Your task to perform on an android device: turn on improve location accuracy Image 0: 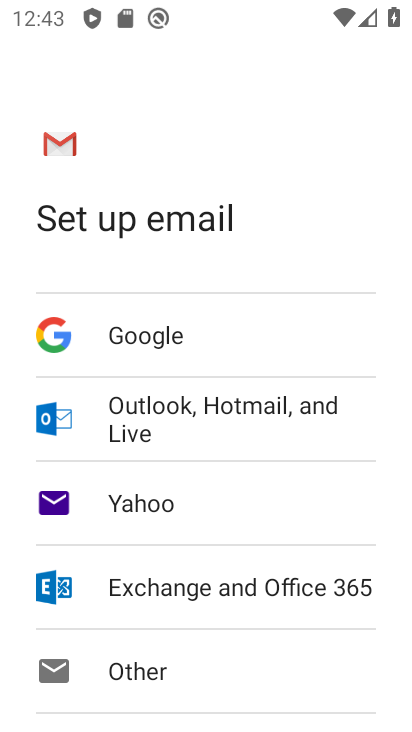
Step 0: press home button
Your task to perform on an android device: turn on improve location accuracy Image 1: 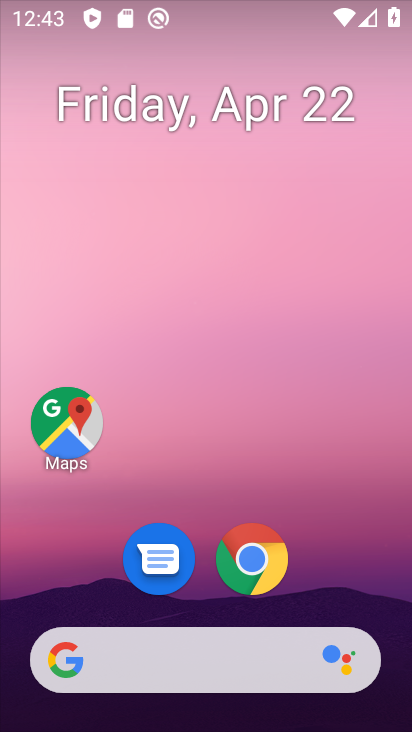
Step 1: drag from (370, 582) to (337, 83)
Your task to perform on an android device: turn on improve location accuracy Image 2: 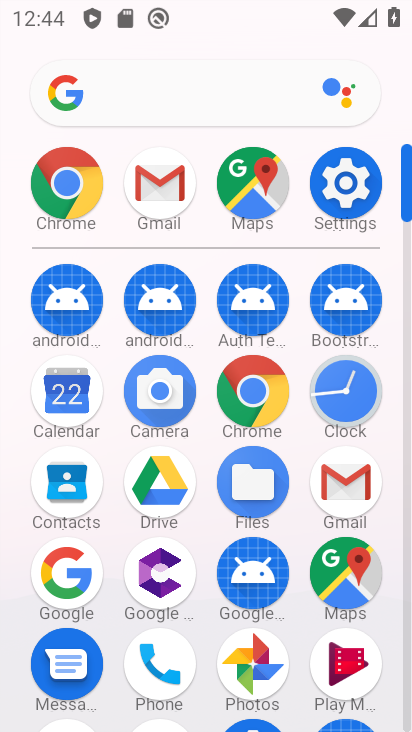
Step 2: click (357, 196)
Your task to perform on an android device: turn on improve location accuracy Image 3: 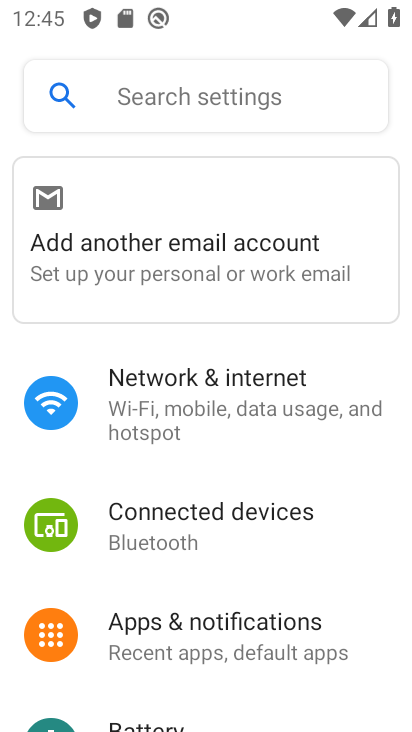
Step 3: drag from (128, 626) to (241, 313)
Your task to perform on an android device: turn on improve location accuracy Image 4: 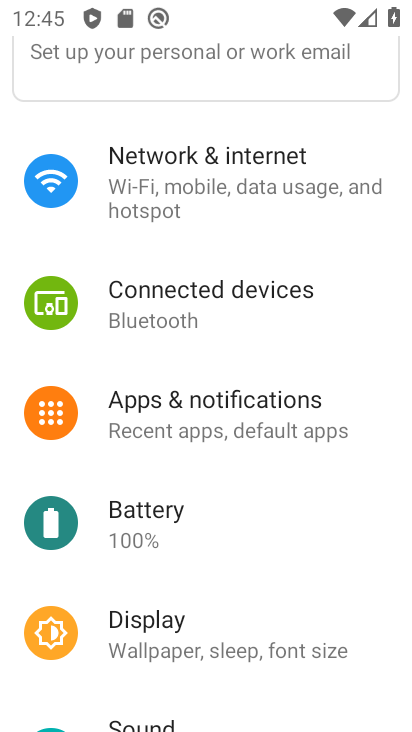
Step 4: drag from (161, 627) to (233, 328)
Your task to perform on an android device: turn on improve location accuracy Image 5: 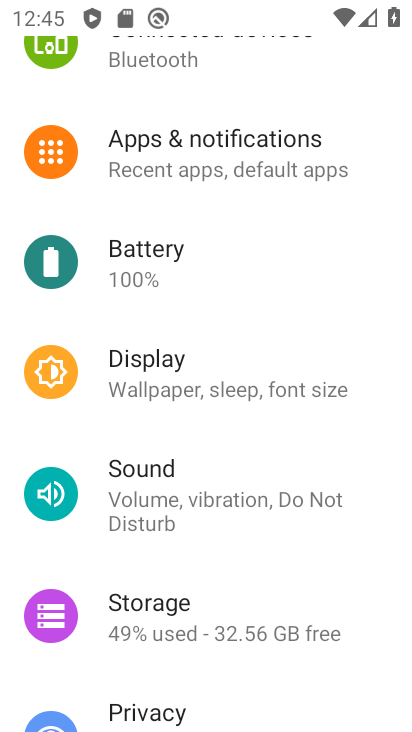
Step 5: drag from (223, 599) to (262, 359)
Your task to perform on an android device: turn on improve location accuracy Image 6: 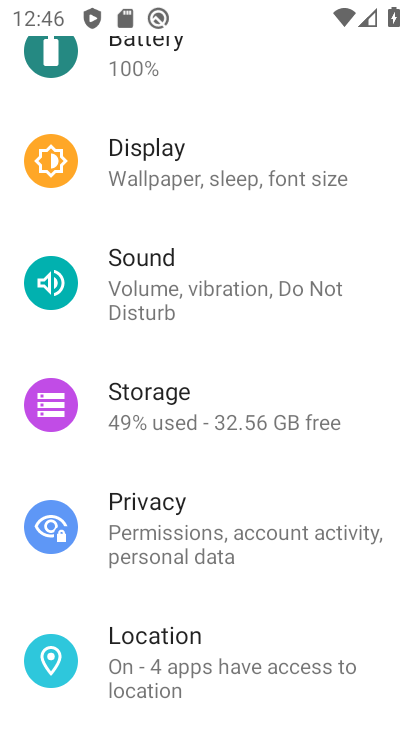
Step 6: click (192, 645)
Your task to perform on an android device: turn on improve location accuracy Image 7: 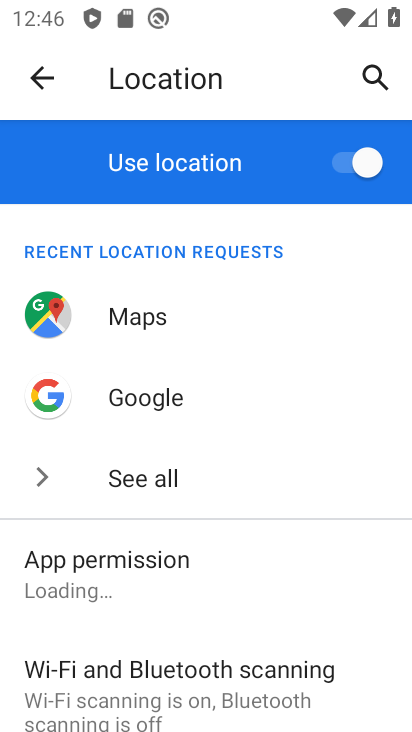
Step 7: drag from (156, 682) to (252, 270)
Your task to perform on an android device: turn on improve location accuracy Image 8: 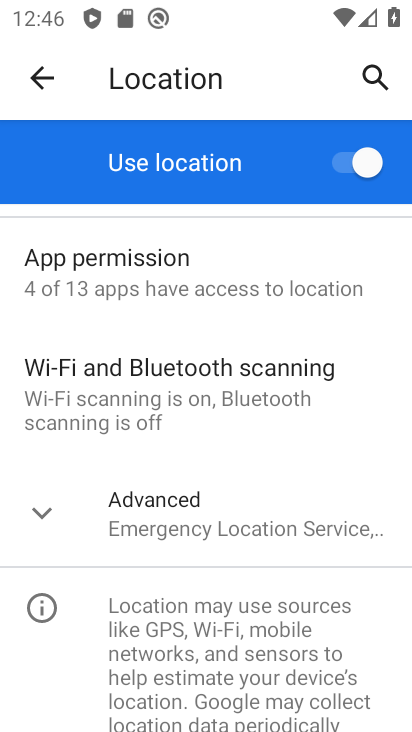
Step 8: click (90, 503)
Your task to perform on an android device: turn on improve location accuracy Image 9: 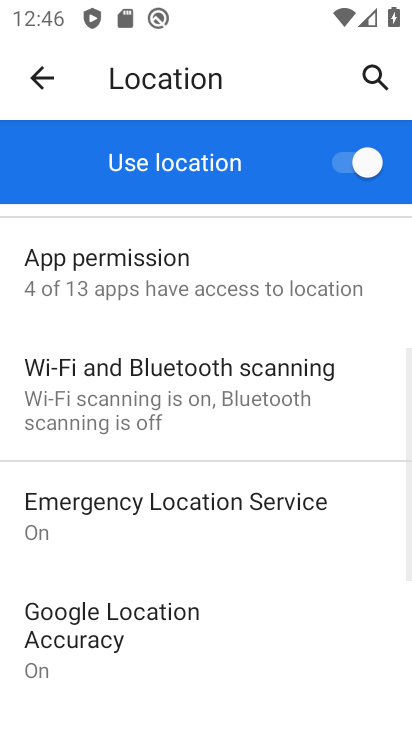
Step 9: drag from (183, 643) to (239, 332)
Your task to perform on an android device: turn on improve location accuracy Image 10: 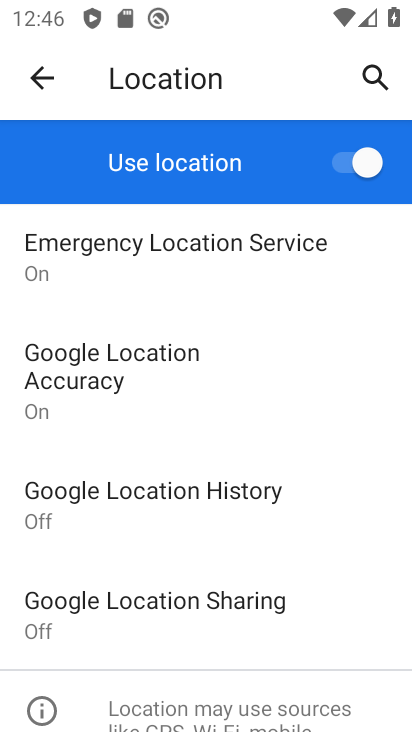
Step 10: click (161, 381)
Your task to perform on an android device: turn on improve location accuracy Image 11: 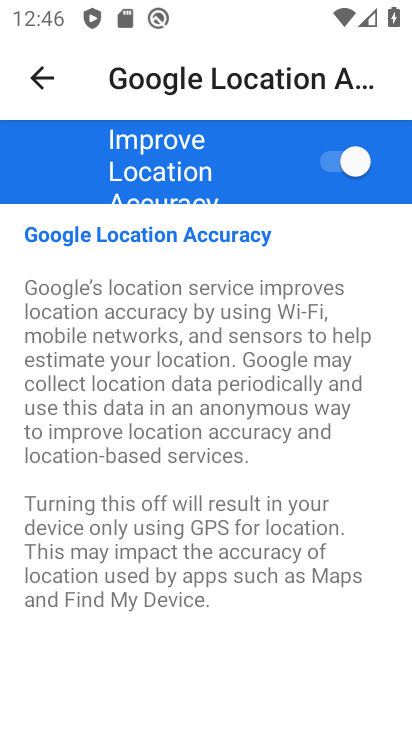
Step 11: task complete